Your task to perform on an android device: set the timer Image 0: 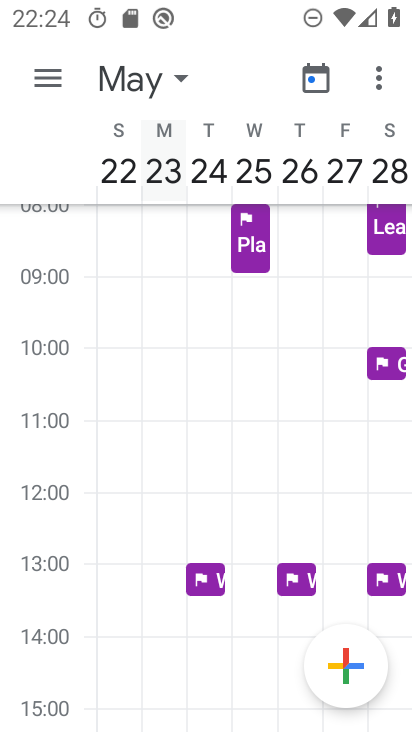
Step 0: press home button
Your task to perform on an android device: set the timer Image 1: 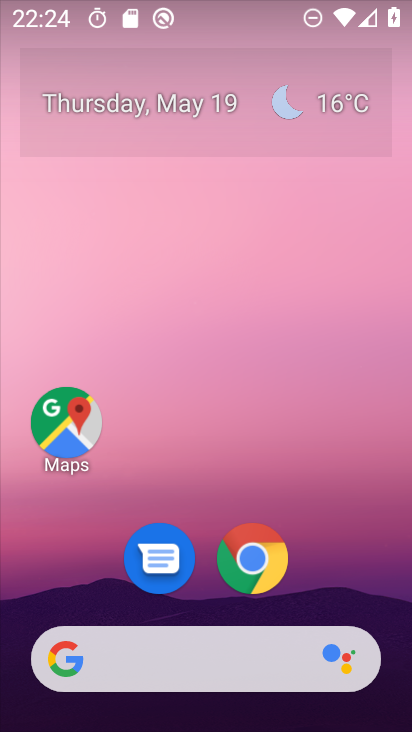
Step 1: drag from (195, 722) to (199, 125)
Your task to perform on an android device: set the timer Image 2: 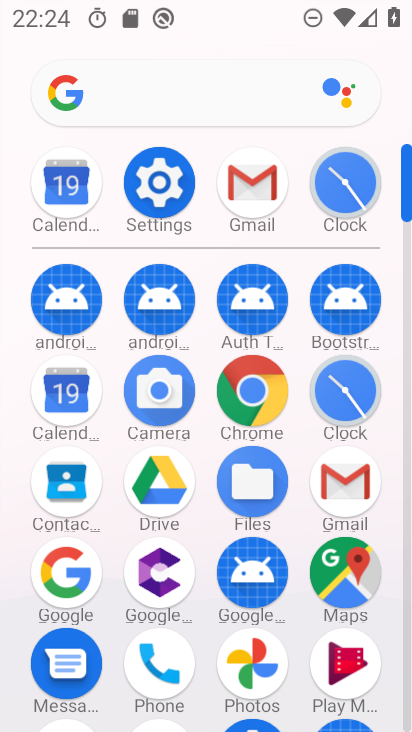
Step 2: click (342, 390)
Your task to perform on an android device: set the timer Image 3: 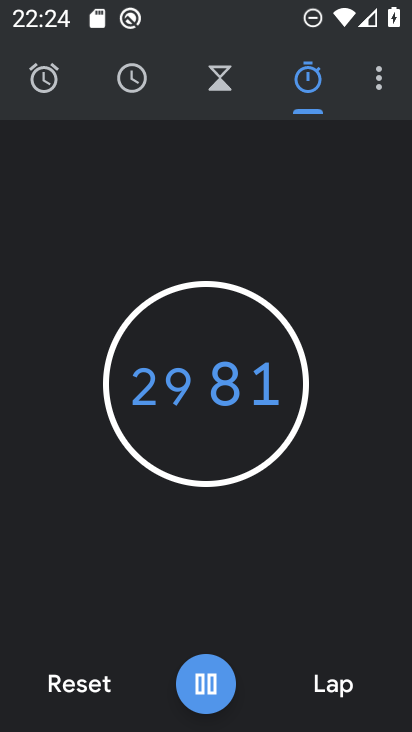
Step 3: click (217, 72)
Your task to perform on an android device: set the timer Image 4: 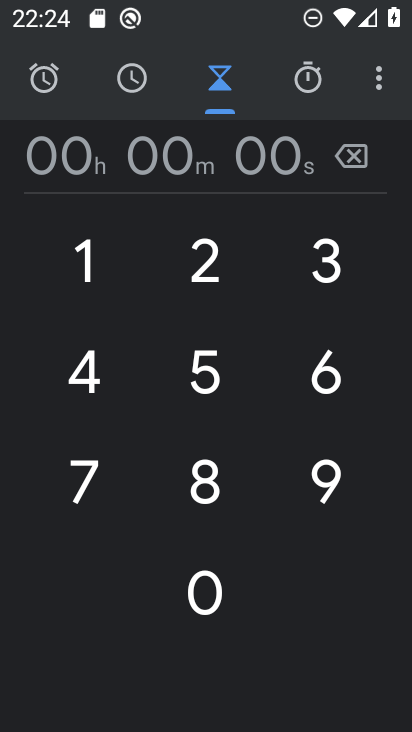
Step 4: click (203, 476)
Your task to perform on an android device: set the timer Image 5: 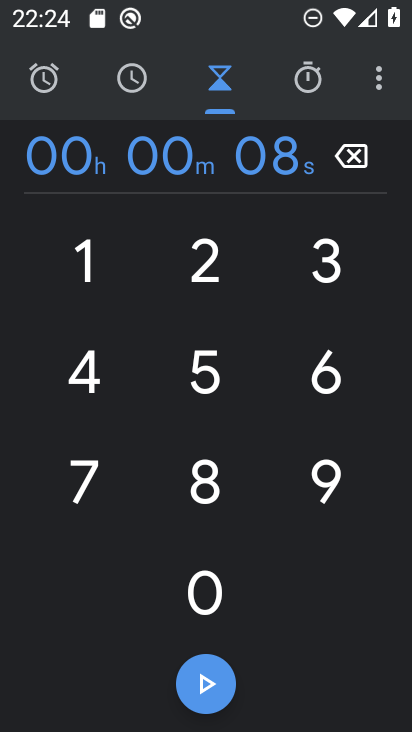
Step 5: click (215, 364)
Your task to perform on an android device: set the timer Image 6: 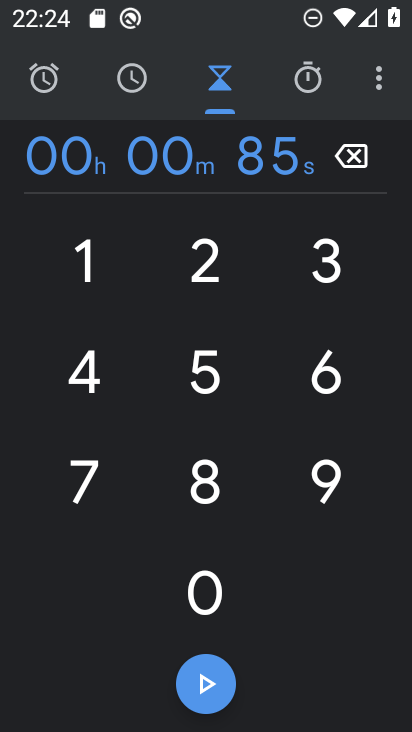
Step 6: click (89, 370)
Your task to perform on an android device: set the timer Image 7: 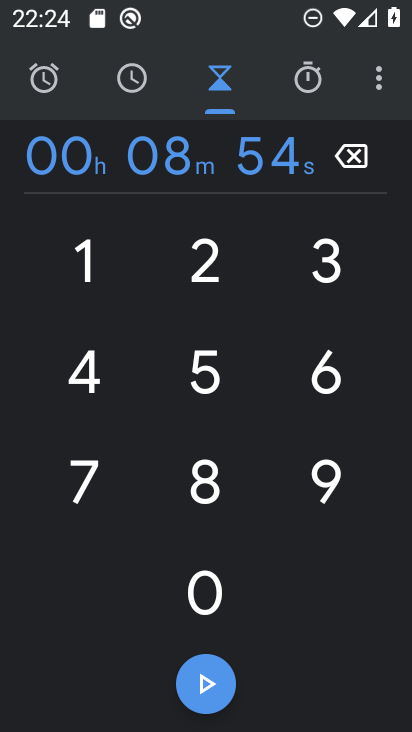
Step 7: click (84, 255)
Your task to perform on an android device: set the timer Image 8: 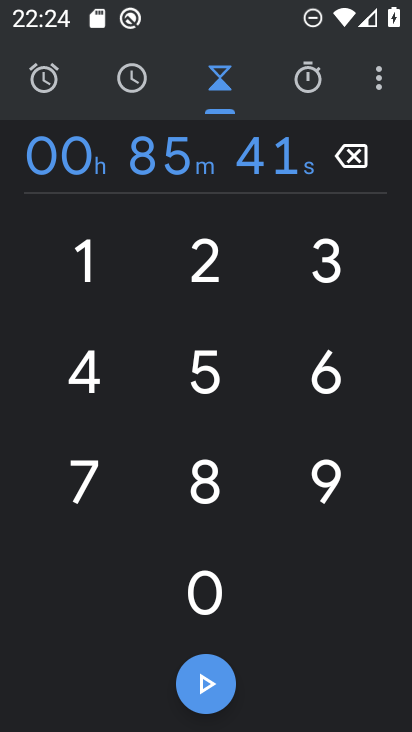
Step 8: click (205, 686)
Your task to perform on an android device: set the timer Image 9: 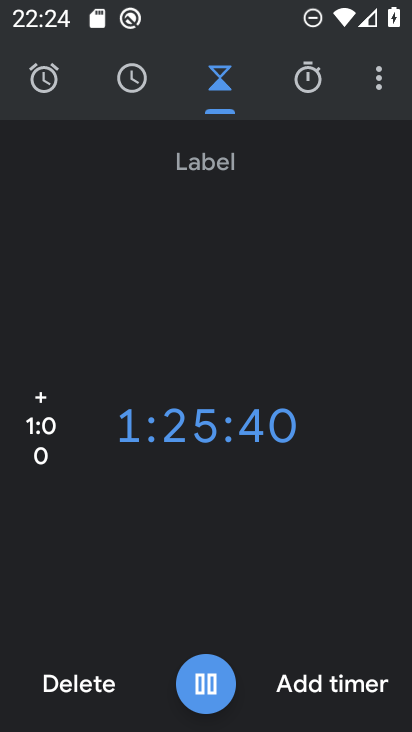
Step 9: task complete